Your task to perform on an android device: Show the shopping cart on target.com. Add logitech g pro to the cart on target.com Image 0: 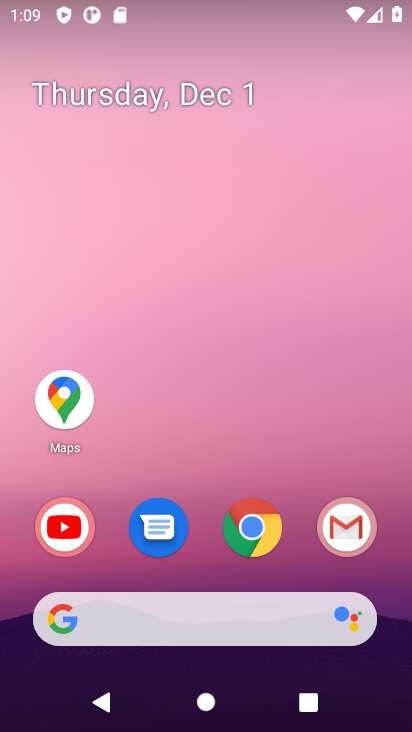
Step 0: click (260, 536)
Your task to perform on an android device: Show the shopping cart on target.com. Add logitech g pro to the cart on target.com Image 1: 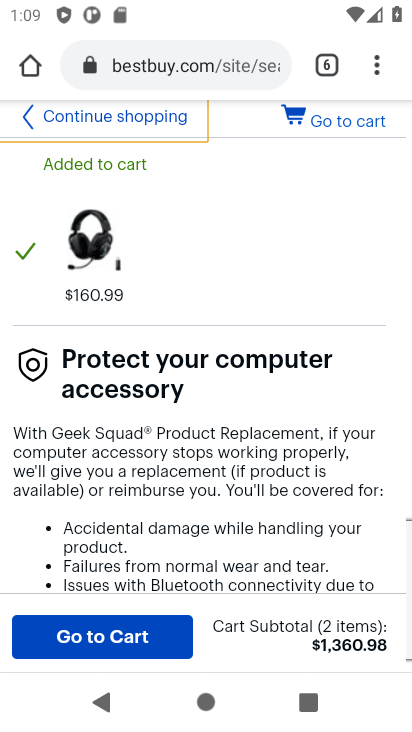
Step 1: click (197, 65)
Your task to perform on an android device: Show the shopping cart on target.com. Add logitech g pro to the cart on target.com Image 2: 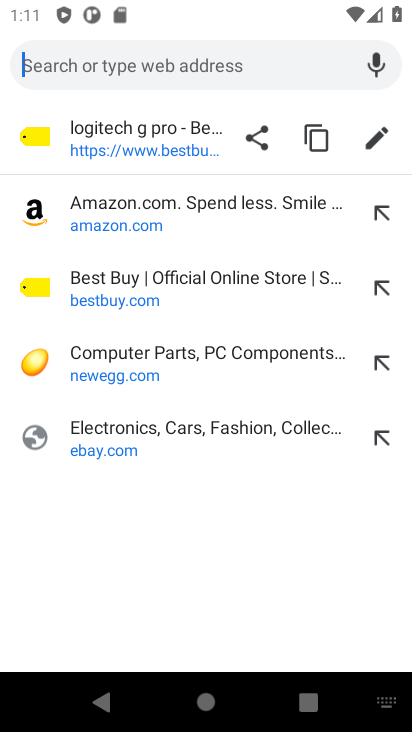
Step 2: type "target.com"
Your task to perform on an android device: Show the shopping cart on target.com. Add logitech g pro to the cart on target.com Image 3: 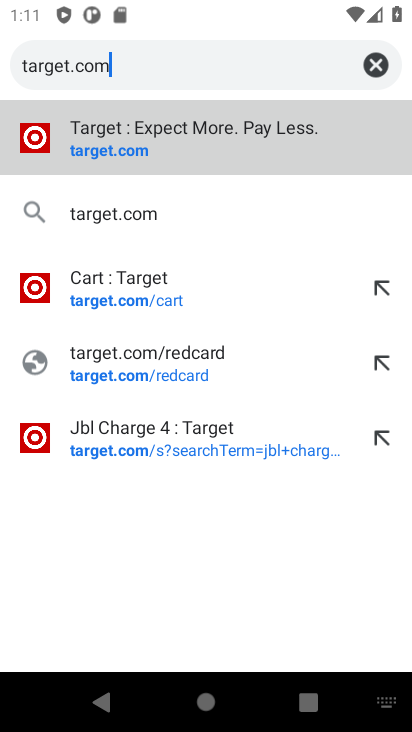
Step 3: click (109, 146)
Your task to perform on an android device: Show the shopping cart on target.com. Add logitech g pro to the cart on target.com Image 4: 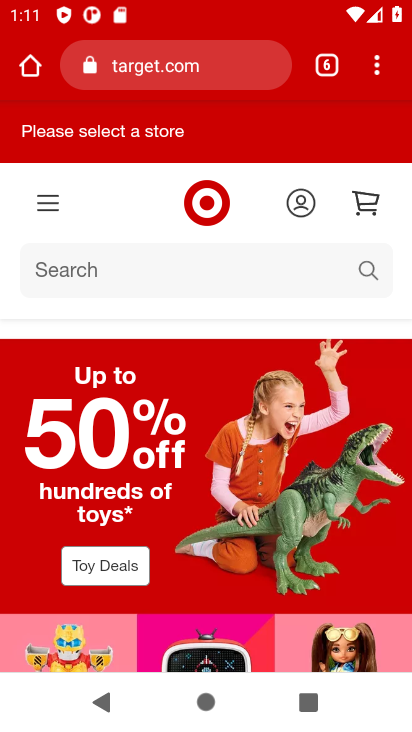
Step 4: click (374, 199)
Your task to perform on an android device: Show the shopping cart on target.com. Add logitech g pro to the cart on target.com Image 5: 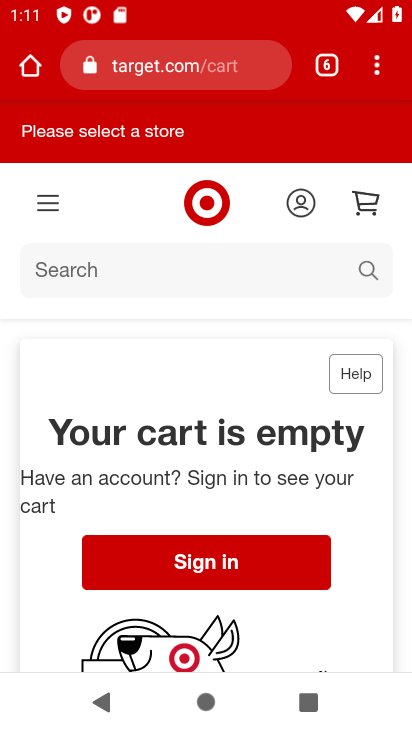
Step 5: click (87, 265)
Your task to perform on an android device: Show the shopping cart on target.com. Add logitech g pro to the cart on target.com Image 6: 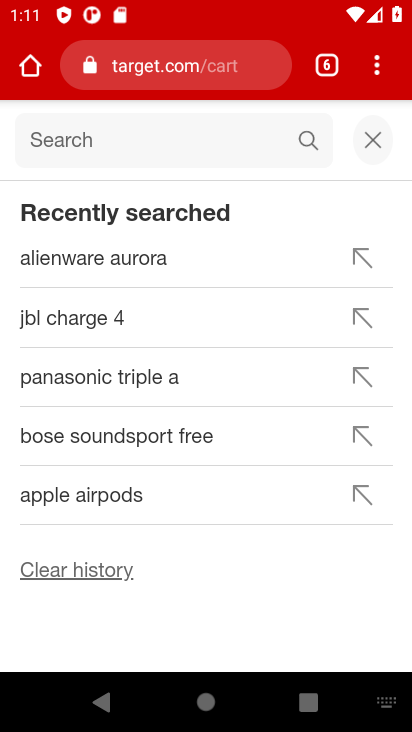
Step 6: type " logitech g pro"
Your task to perform on an android device: Show the shopping cart on target.com. Add logitech g pro to the cart on target.com Image 7: 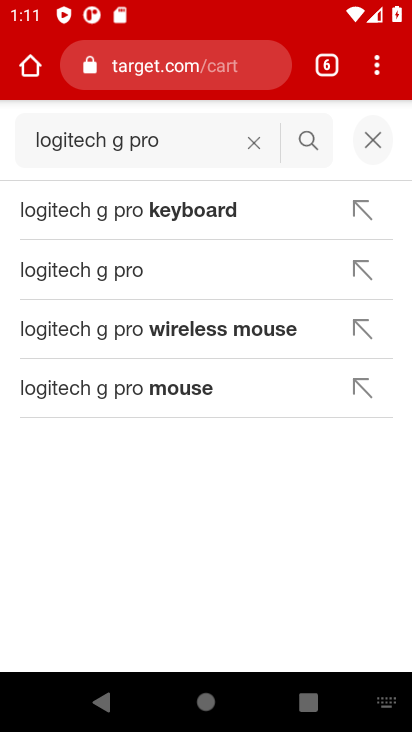
Step 7: click (109, 271)
Your task to perform on an android device: Show the shopping cart on target.com. Add logitech g pro to the cart on target.com Image 8: 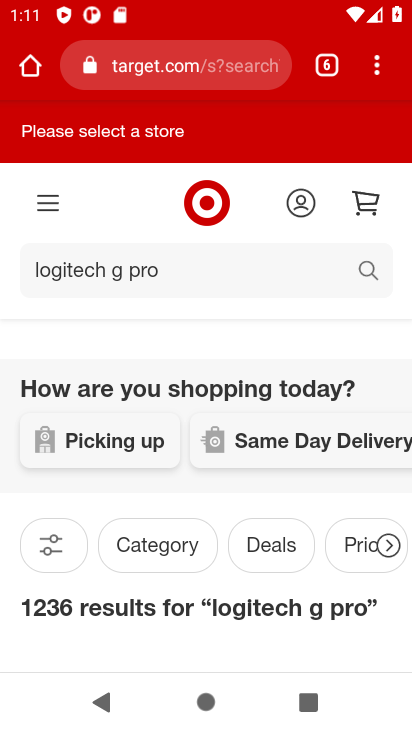
Step 8: task complete